Your task to perform on an android device: find which apps use the phone's location Image 0: 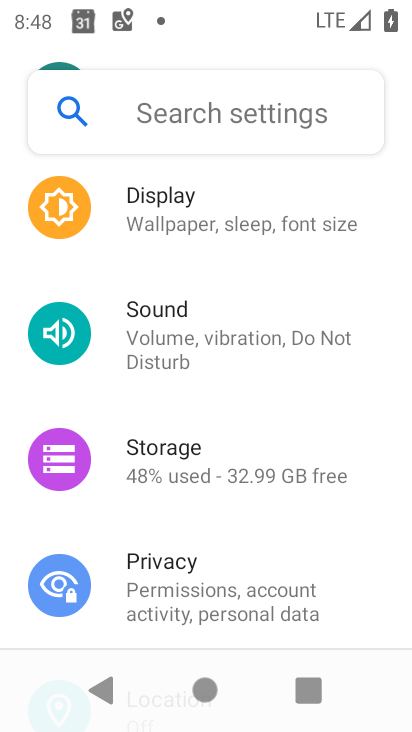
Step 0: drag from (213, 529) to (206, 242)
Your task to perform on an android device: find which apps use the phone's location Image 1: 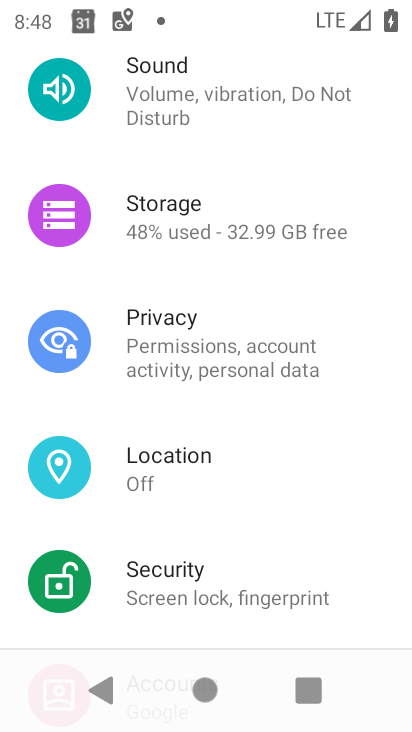
Step 1: click (182, 459)
Your task to perform on an android device: find which apps use the phone's location Image 2: 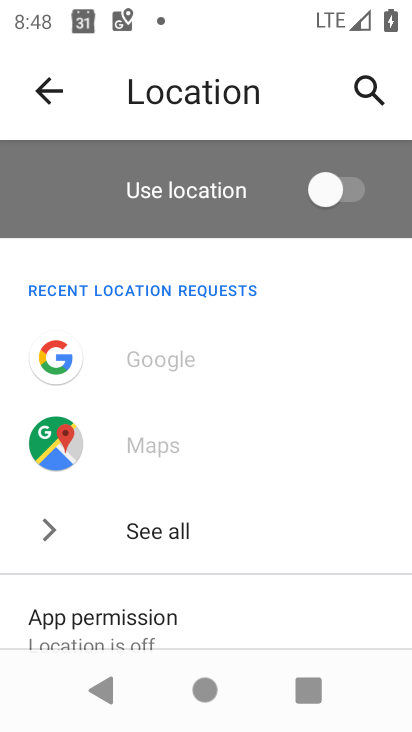
Step 2: click (163, 618)
Your task to perform on an android device: find which apps use the phone's location Image 3: 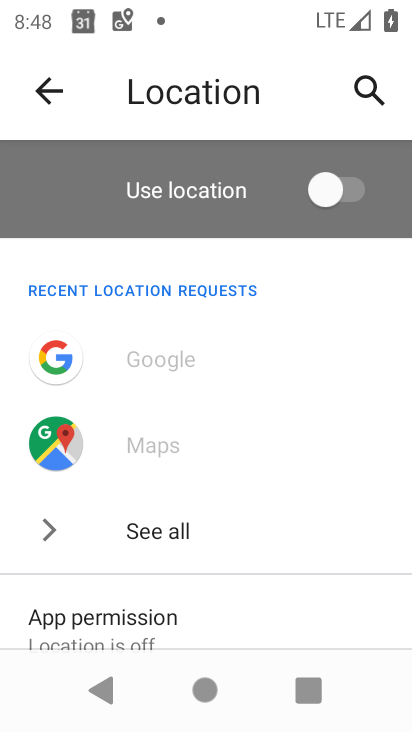
Step 3: task complete